Your task to perform on an android device: turn on sleep mode Image 0: 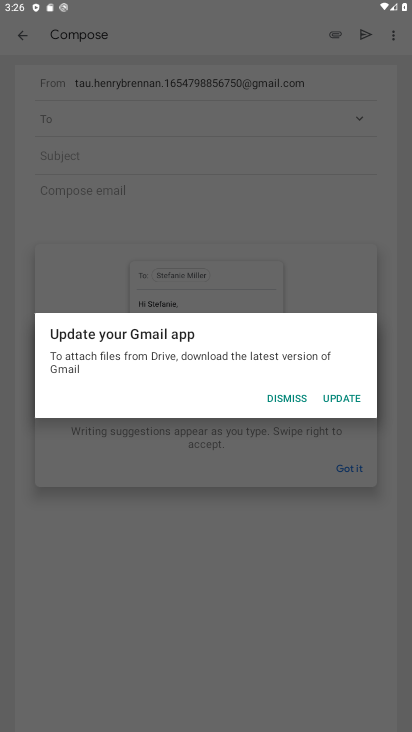
Step 0: press home button
Your task to perform on an android device: turn on sleep mode Image 1: 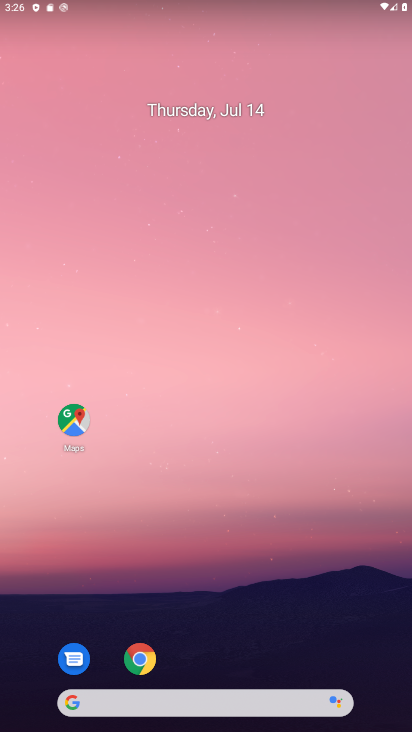
Step 1: drag from (220, 684) to (299, 192)
Your task to perform on an android device: turn on sleep mode Image 2: 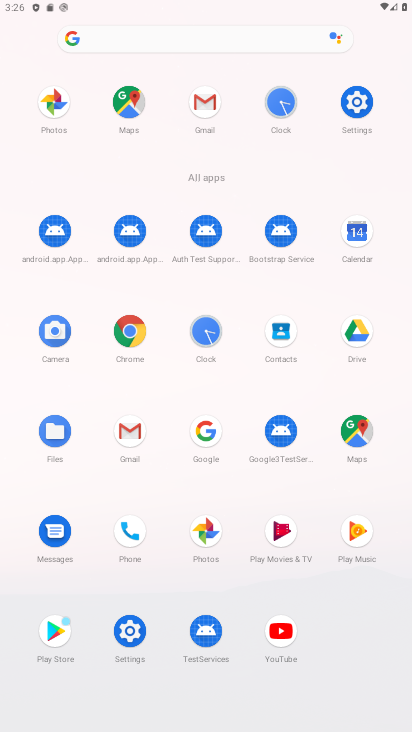
Step 2: click (135, 637)
Your task to perform on an android device: turn on sleep mode Image 3: 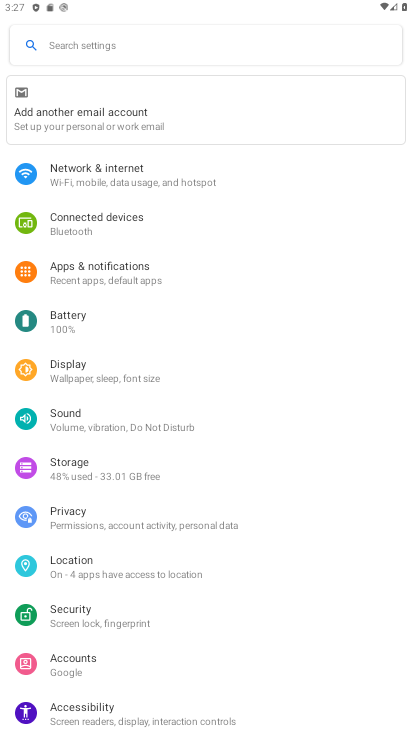
Step 3: click (100, 370)
Your task to perform on an android device: turn on sleep mode Image 4: 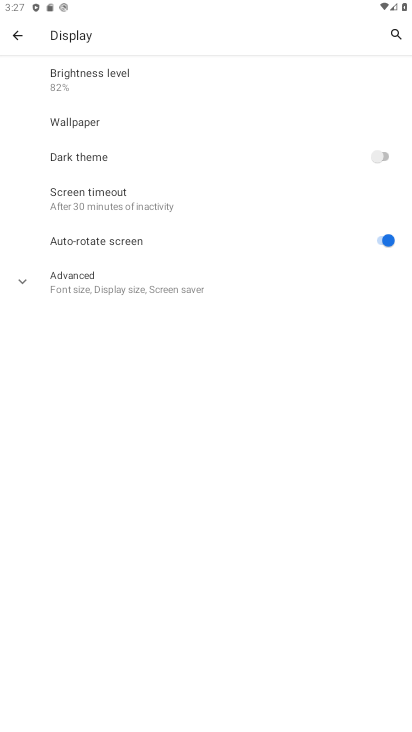
Step 4: click (119, 283)
Your task to perform on an android device: turn on sleep mode Image 5: 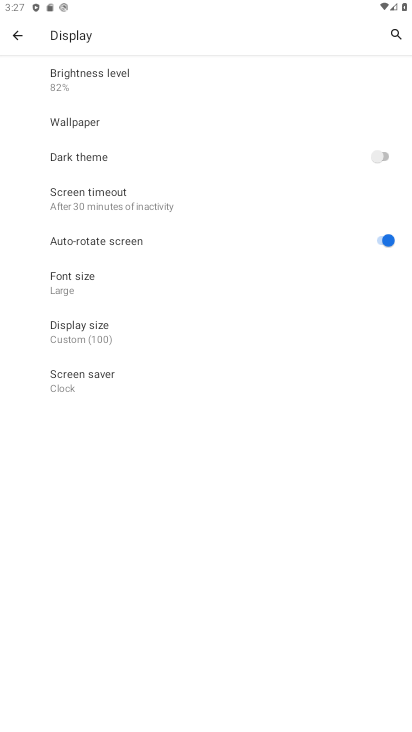
Step 5: task complete